Your task to perform on an android device: Open Yahoo.com Image 0: 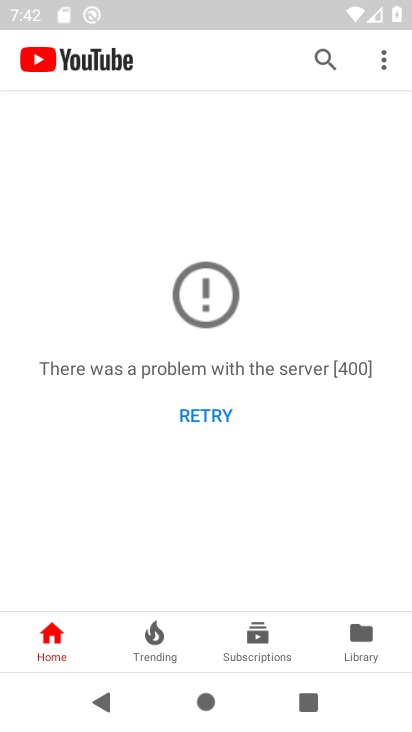
Step 0: press home button
Your task to perform on an android device: Open Yahoo.com Image 1: 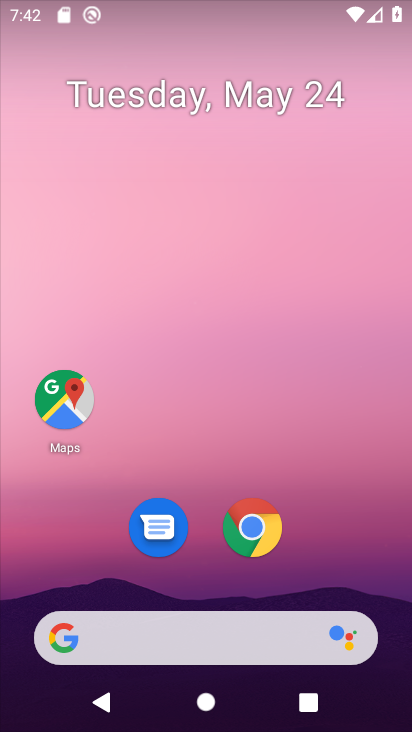
Step 1: click (252, 525)
Your task to perform on an android device: Open Yahoo.com Image 2: 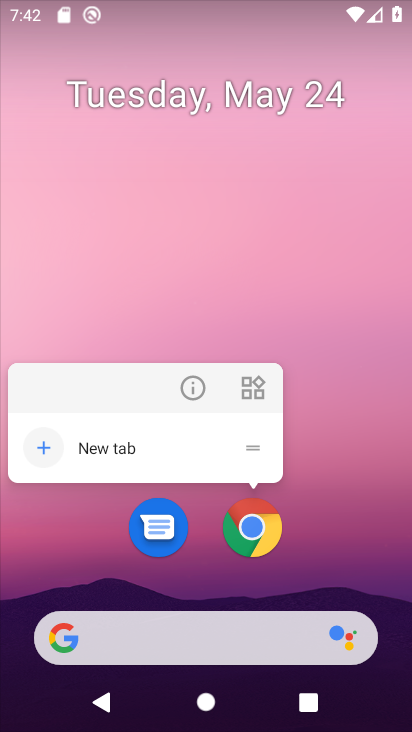
Step 2: click (254, 525)
Your task to perform on an android device: Open Yahoo.com Image 3: 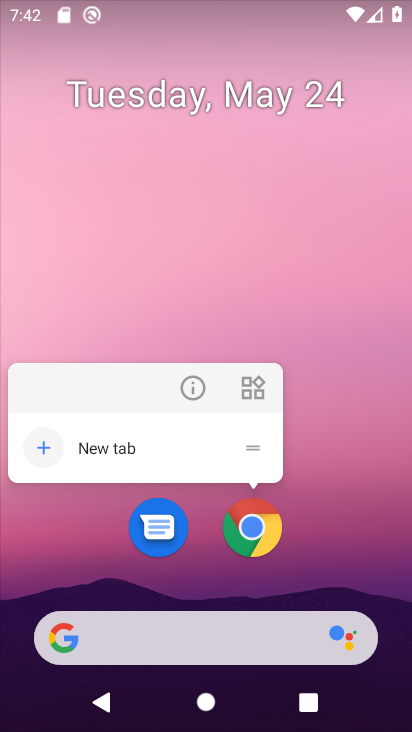
Step 3: click (258, 537)
Your task to perform on an android device: Open Yahoo.com Image 4: 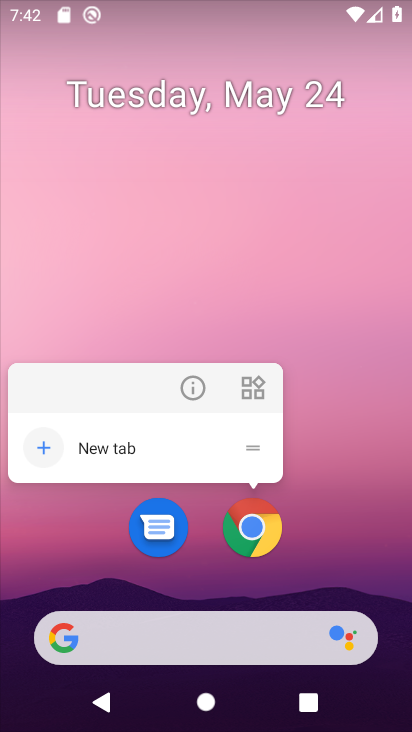
Step 4: click (318, 542)
Your task to perform on an android device: Open Yahoo.com Image 5: 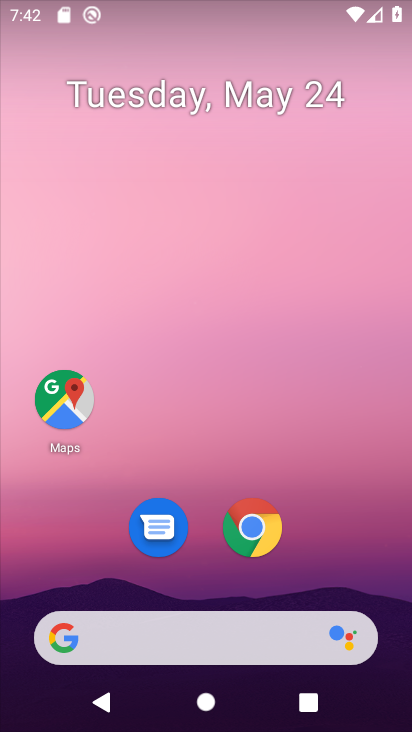
Step 5: drag from (387, 542) to (314, 155)
Your task to perform on an android device: Open Yahoo.com Image 6: 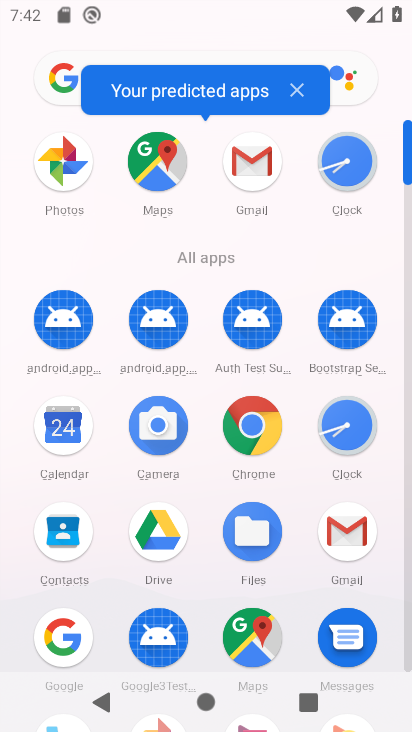
Step 6: click (252, 425)
Your task to perform on an android device: Open Yahoo.com Image 7: 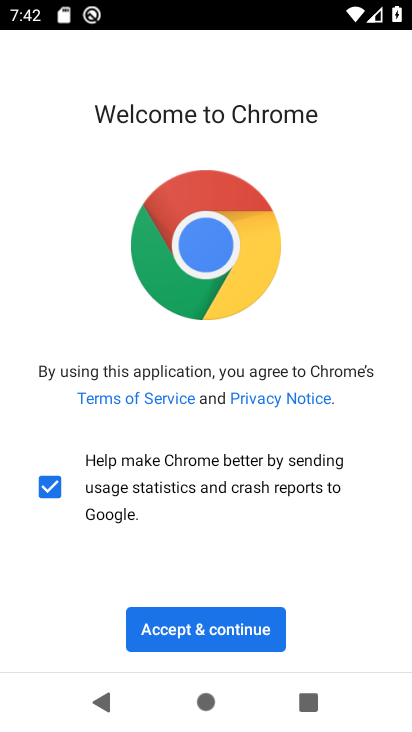
Step 7: click (233, 626)
Your task to perform on an android device: Open Yahoo.com Image 8: 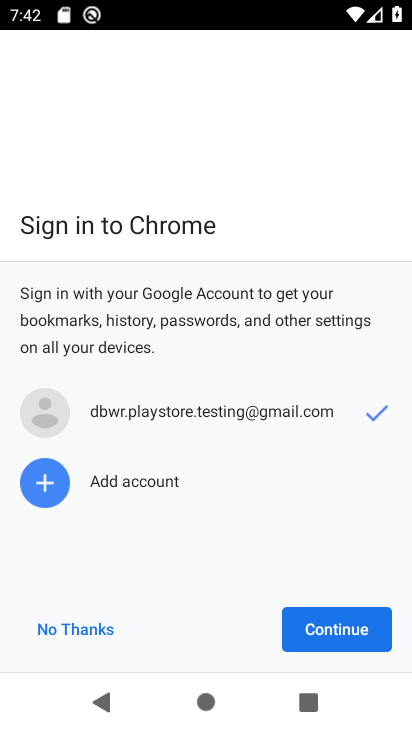
Step 8: click (232, 622)
Your task to perform on an android device: Open Yahoo.com Image 9: 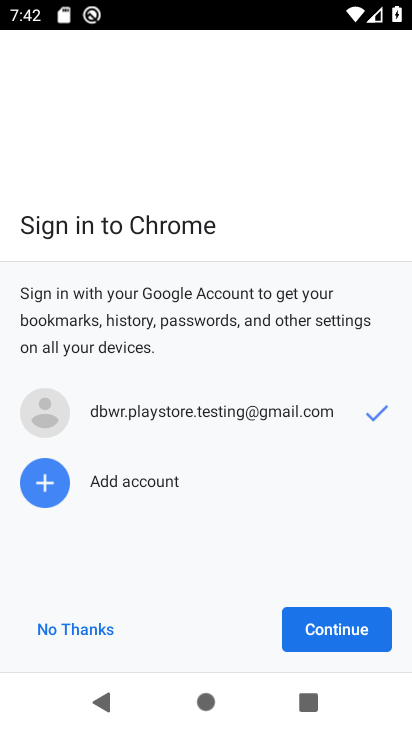
Step 9: click (318, 632)
Your task to perform on an android device: Open Yahoo.com Image 10: 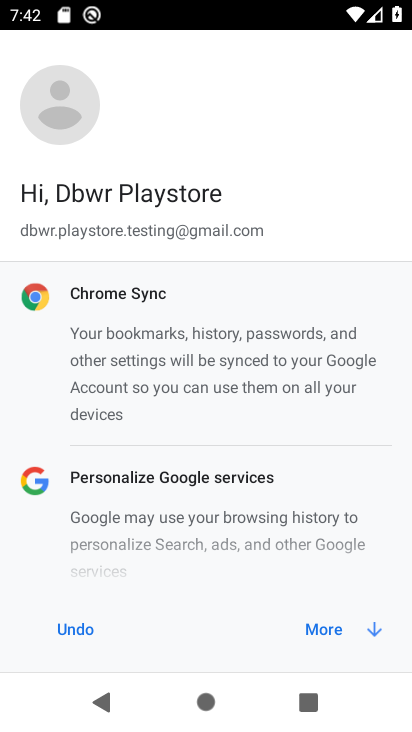
Step 10: click (319, 631)
Your task to perform on an android device: Open Yahoo.com Image 11: 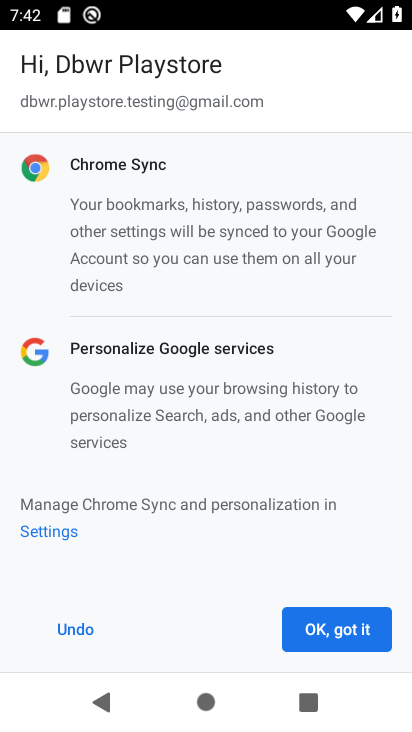
Step 11: click (318, 631)
Your task to perform on an android device: Open Yahoo.com Image 12: 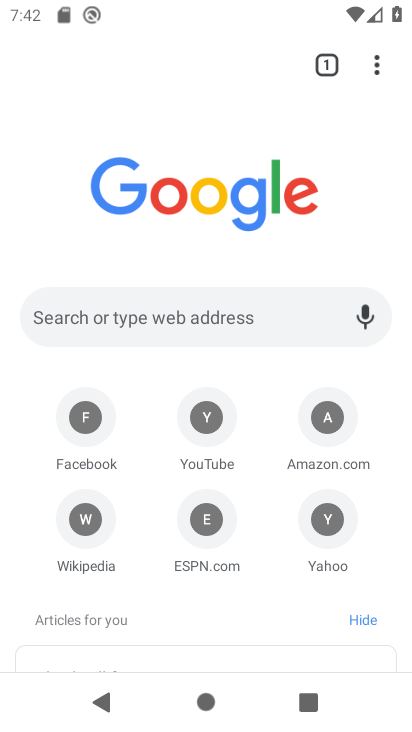
Step 12: click (186, 77)
Your task to perform on an android device: Open Yahoo.com Image 13: 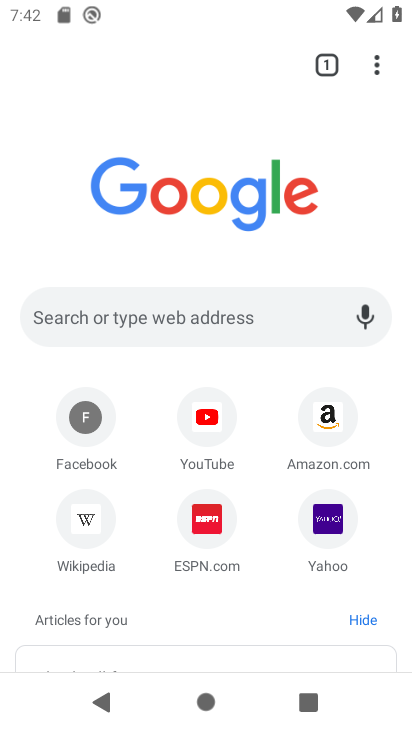
Step 13: click (329, 540)
Your task to perform on an android device: Open Yahoo.com Image 14: 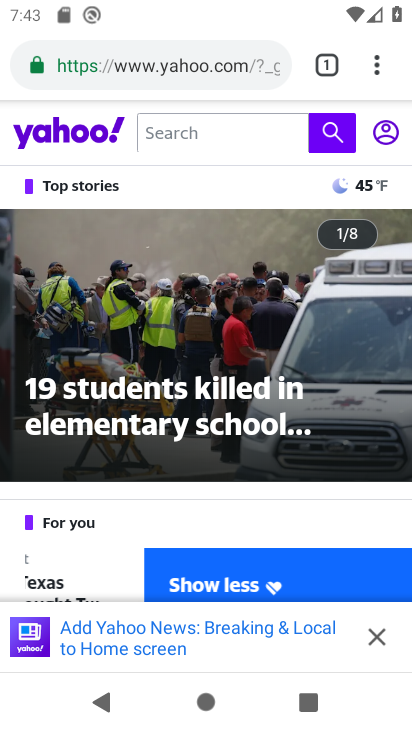
Step 14: task complete